Your task to perform on an android device: Search for seafood restaurants on Google Maps Image 0: 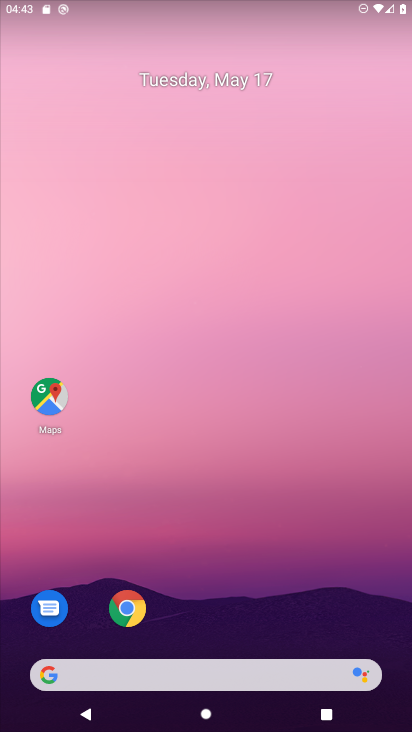
Step 0: drag from (162, 661) to (222, 347)
Your task to perform on an android device: Search for seafood restaurants on Google Maps Image 1: 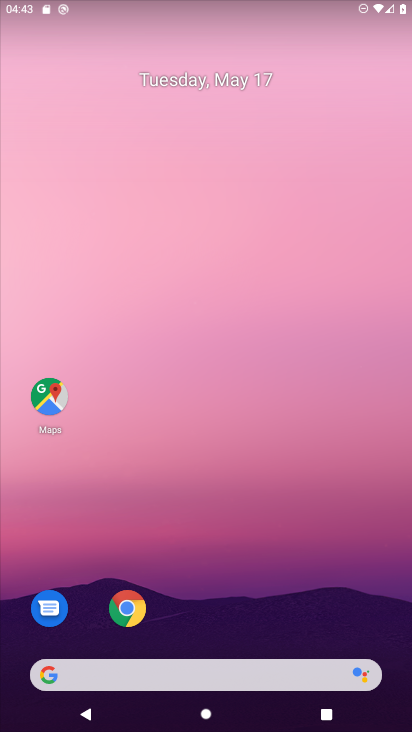
Step 1: click (59, 399)
Your task to perform on an android device: Search for seafood restaurants on Google Maps Image 2: 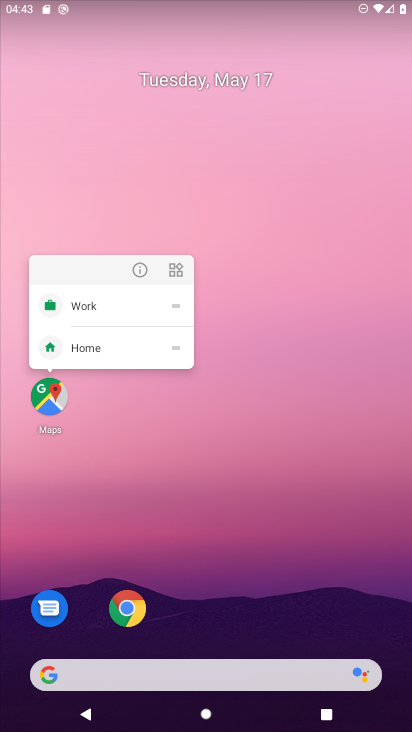
Step 2: click (53, 398)
Your task to perform on an android device: Search for seafood restaurants on Google Maps Image 3: 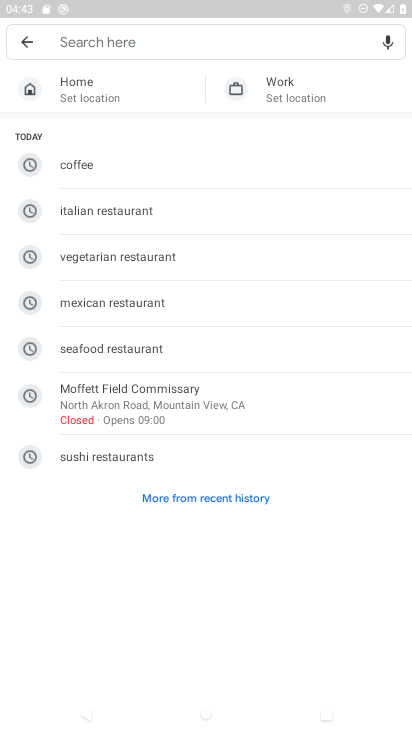
Step 3: click (110, 45)
Your task to perform on an android device: Search for seafood restaurants on Google Maps Image 4: 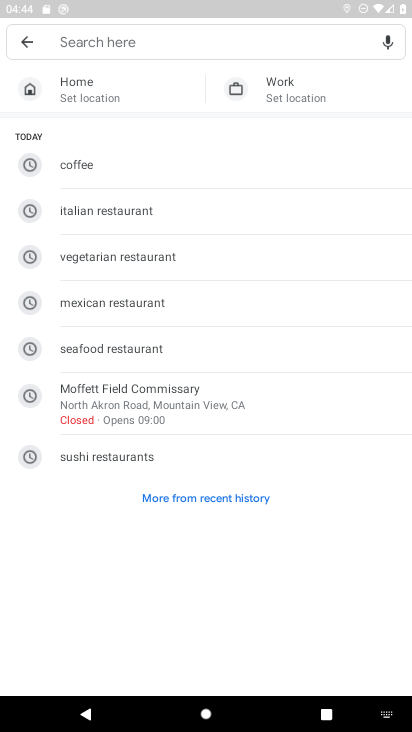
Step 4: click (138, 350)
Your task to perform on an android device: Search for seafood restaurants on Google Maps Image 5: 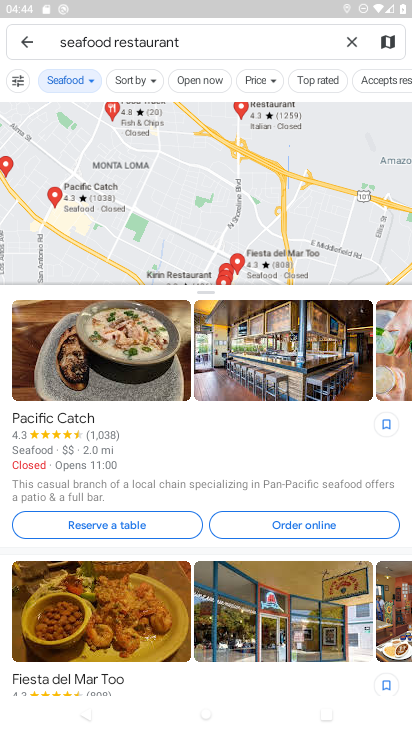
Step 5: task complete